Your task to perform on an android device: allow cookies in the chrome app Image 0: 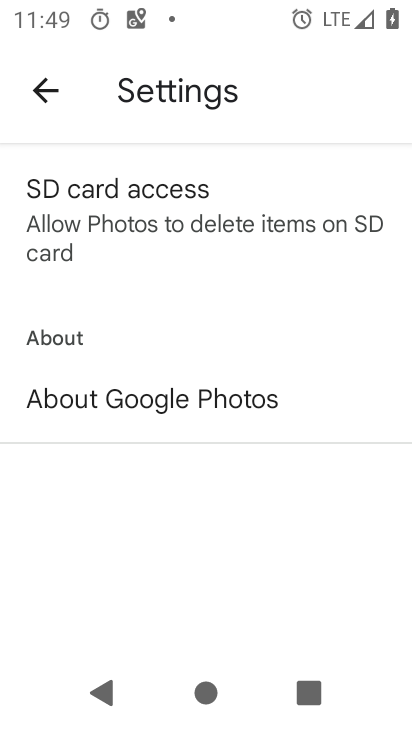
Step 0: press back button
Your task to perform on an android device: allow cookies in the chrome app Image 1: 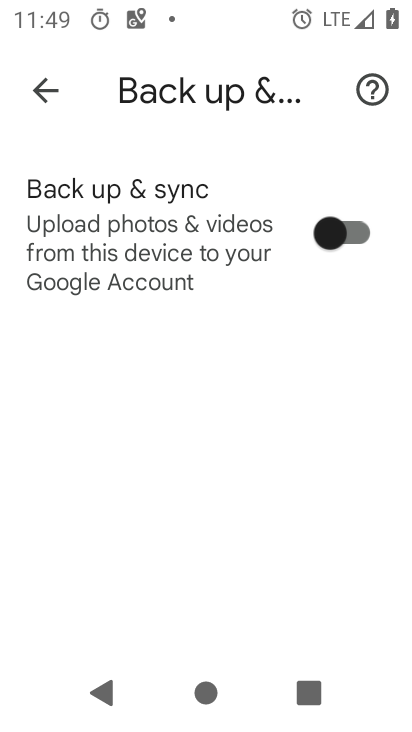
Step 1: press back button
Your task to perform on an android device: allow cookies in the chrome app Image 2: 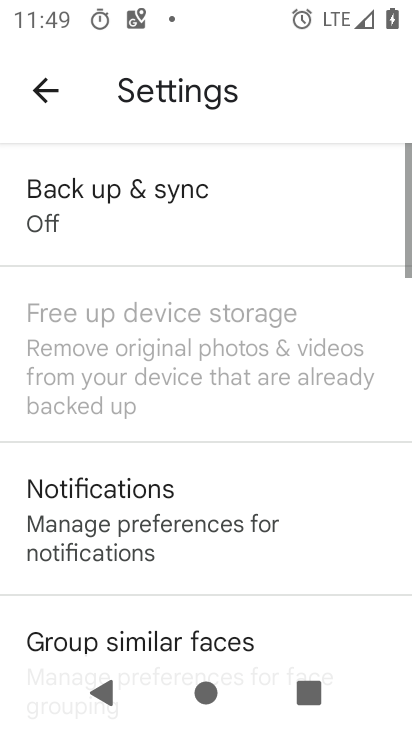
Step 2: press home button
Your task to perform on an android device: allow cookies in the chrome app Image 3: 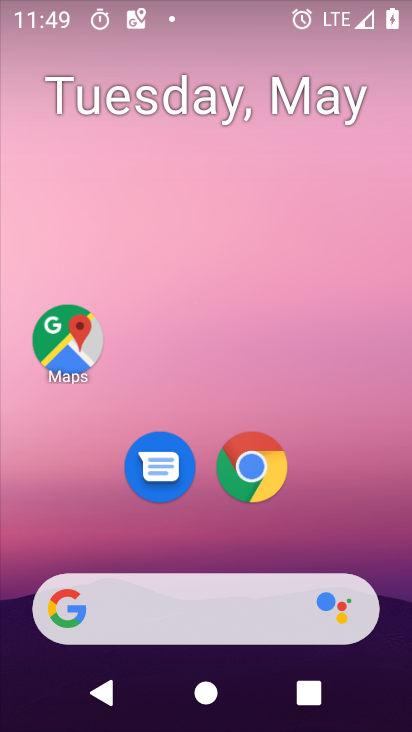
Step 3: click (253, 462)
Your task to perform on an android device: allow cookies in the chrome app Image 4: 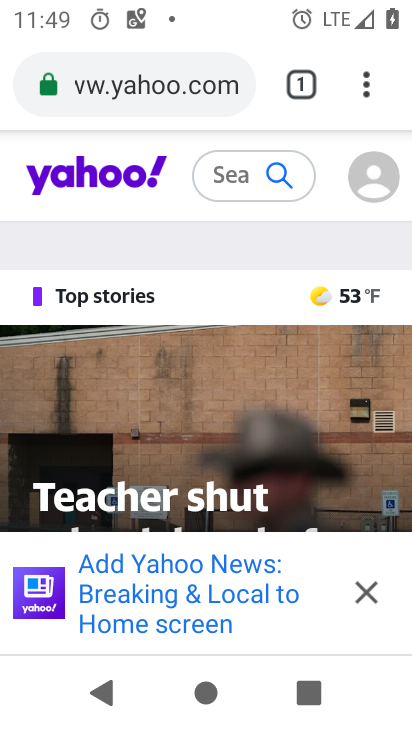
Step 4: drag from (361, 79) to (118, 512)
Your task to perform on an android device: allow cookies in the chrome app Image 5: 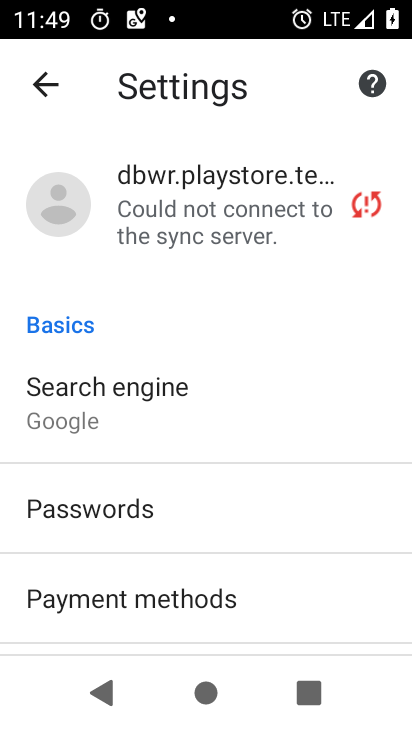
Step 5: drag from (228, 558) to (222, 195)
Your task to perform on an android device: allow cookies in the chrome app Image 6: 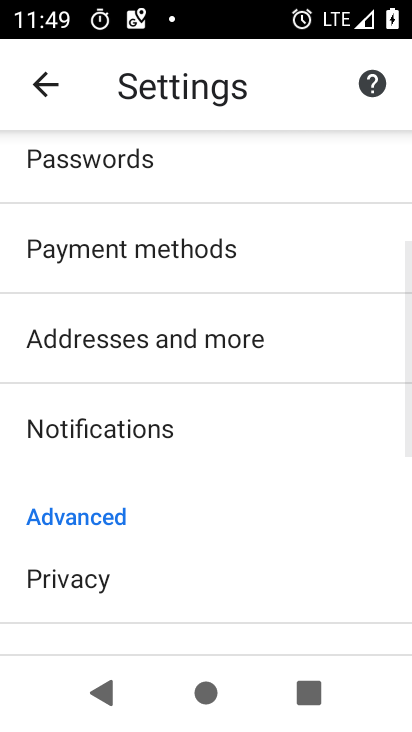
Step 6: drag from (243, 544) to (260, 167)
Your task to perform on an android device: allow cookies in the chrome app Image 7: 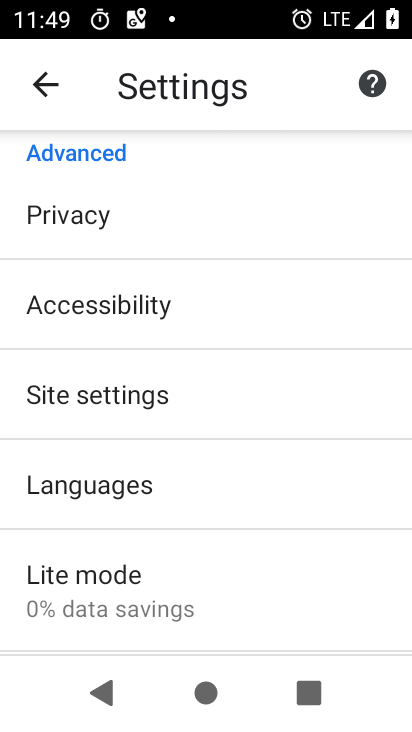
Step 7: drag from (238, 552) to (236, 209)
Your task to perform on an android device: allow cookies in the chrome app Image 8: 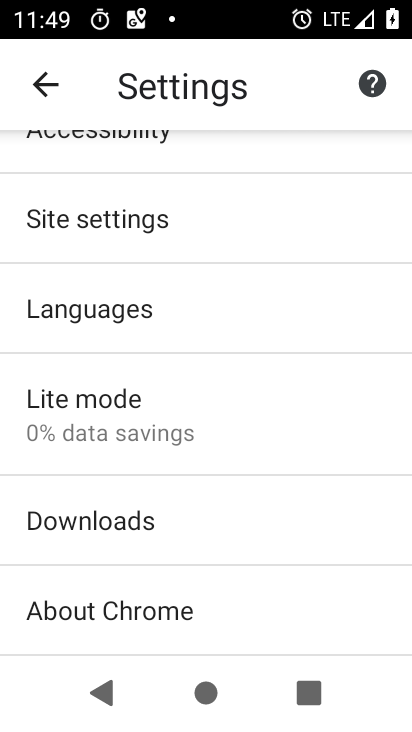
Step 8: drag from (233, 248) to (197, 537)
Your task to perform on an android device: allow cookies in the chrome app Image 9: 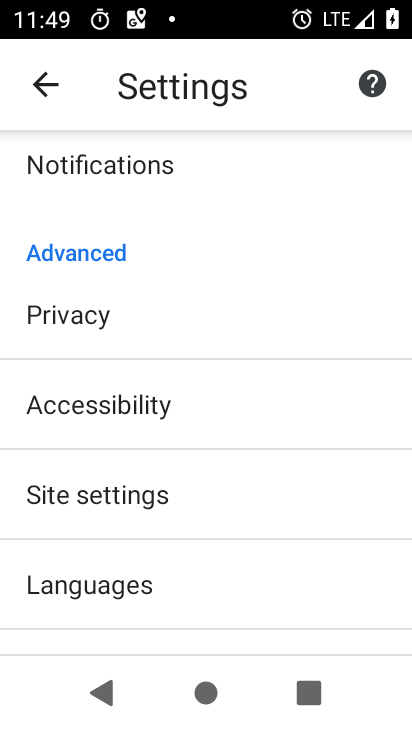
Step 9: click (139, 501)
Your task to perform on an android device: allow cookies in the chrome app Image 10: 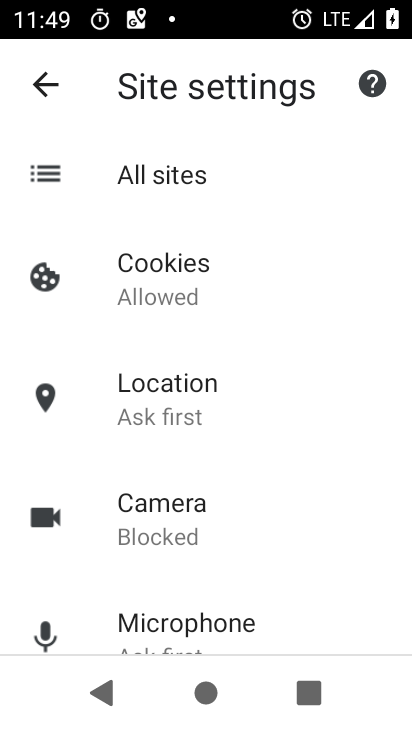
Step 10: click (221, 272)
Your task to perform on an android device: allow cookies in the chrome app Image 11: 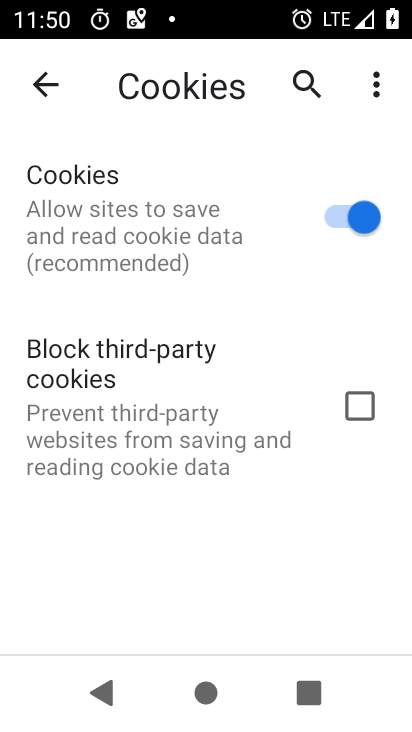
Step 11: task complete